Your task to perform on an android device: stop showing notifications on the lock screen Image 0: 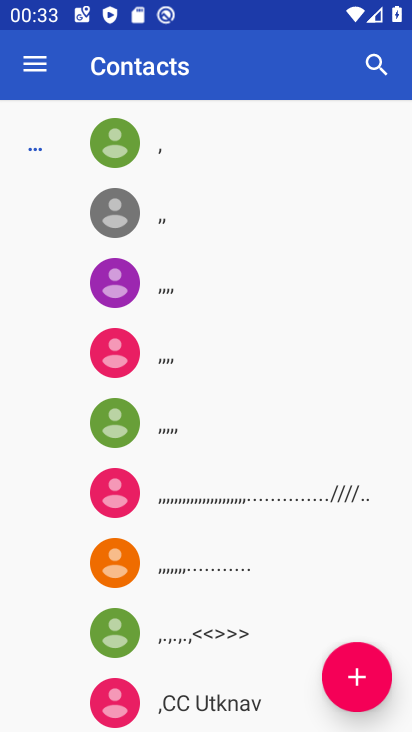
Step 0: press home button
Your task to perform on an android device: stop showing notifications on the lock screen Image 1: 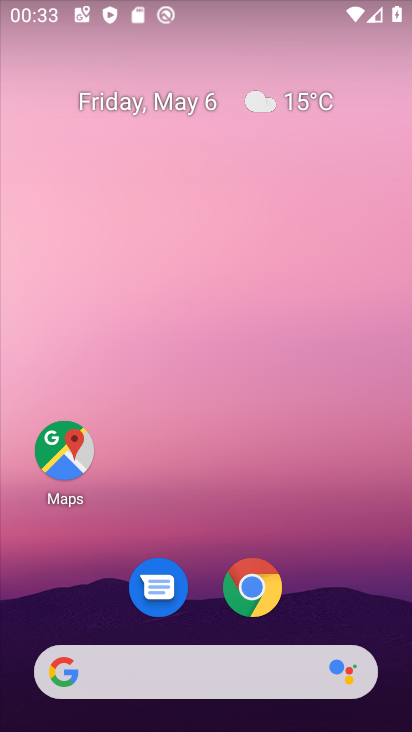
Step 1: drag from (337, 361) to (323, 243)
Your task to perform on an android device: stop showing notifications on the lock screen Image 2: 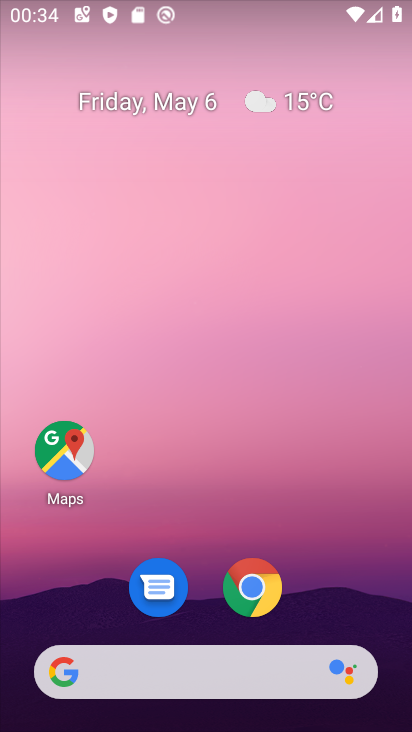
Step 2: drag from (375, 594) to (329, 108)
Your task to perform on an android device: stop showing notifications on the lock screen Image 3: 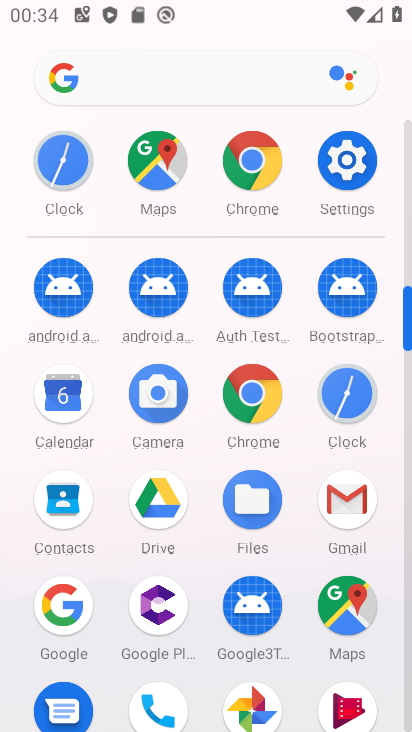
Step 3: click (349, 169)
Your task to perform on an android device: stop showing notifications on the lock screen Image 4: 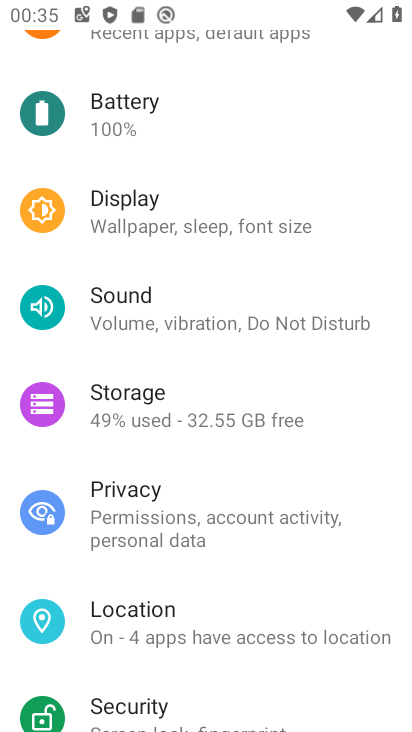
Step 4: drag from (261, 207) to (330, 593)
Your task to perform on an android device: stop showing notifications on the lock screen Image 5: 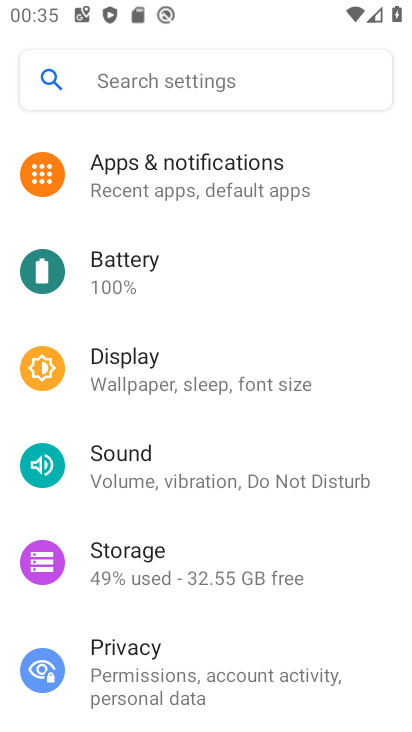
Step 5: click (192, 177)
Your task to perform on an android device: stop showing notifications on the lock screen Image 6: 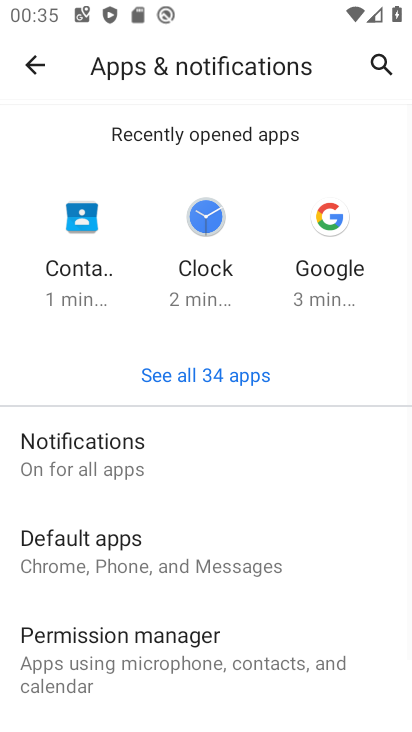
Step 6: click (57, 456)
Your task to perform on an android device: stop showing notifications on the lock screen Image 7: 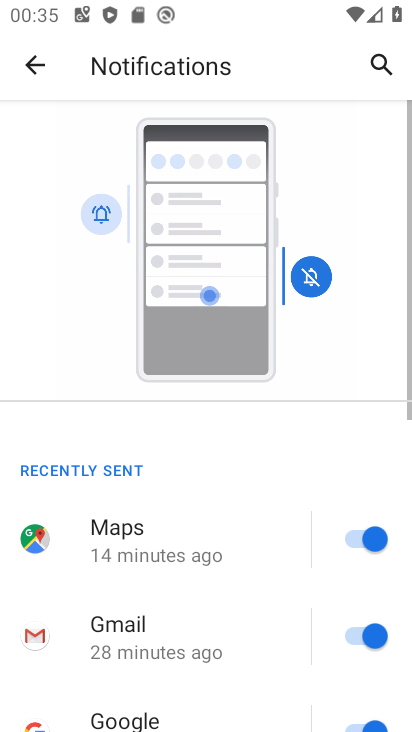
Step 7: drag from (274, 542) to (247, 217)
Your task to perform on an android device: stop showing notifications on the lock screen Image 8: 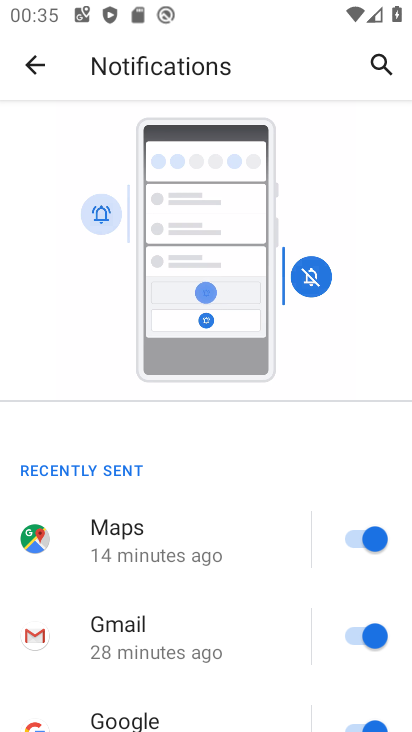
Step 8: drag from (279, 649) to (239, 384)
Your task to perform on an android device: stop showing notifications on the lock screen Image 9: 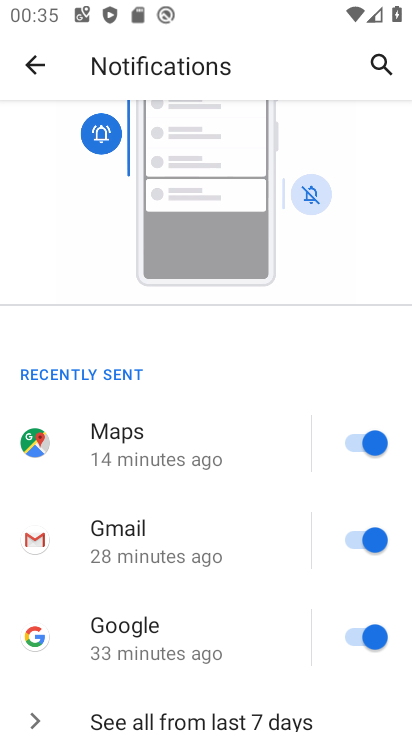
Step 9: drag from (258, 664) to (200, 379)
Your task to perform on an android device: stop showing notifications on the lock screen Image 10: 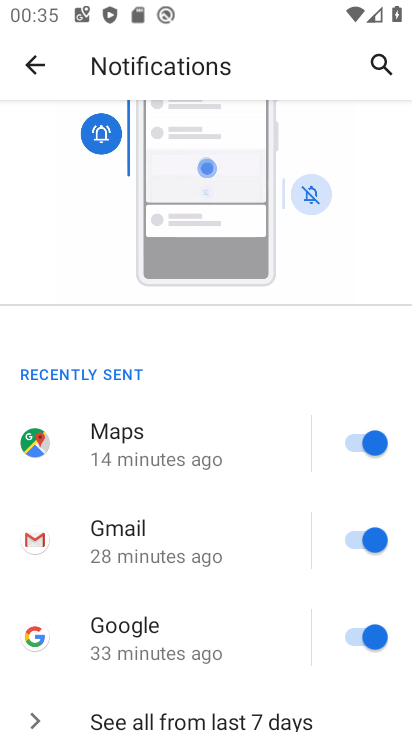
Step 10: drag from (266, 654) to (230, 260)
Your task to perform on an android device: stop showing notifications on the lock screen Image 11: 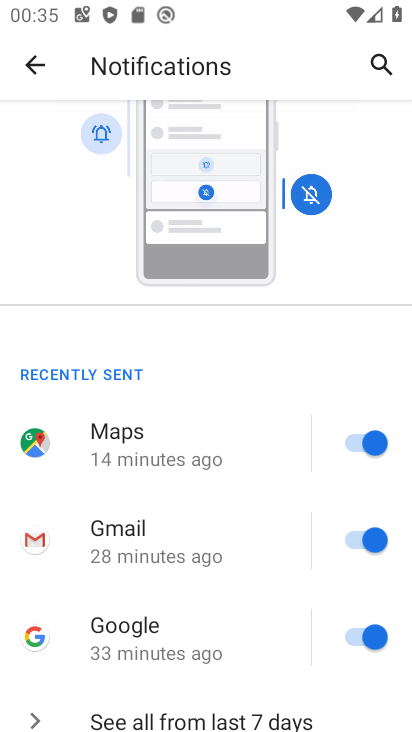
Step 11: drag from (302, 690) to (272, 311)
Your task to perform on an android device: stop showing notifications on the lock screen Image 12: 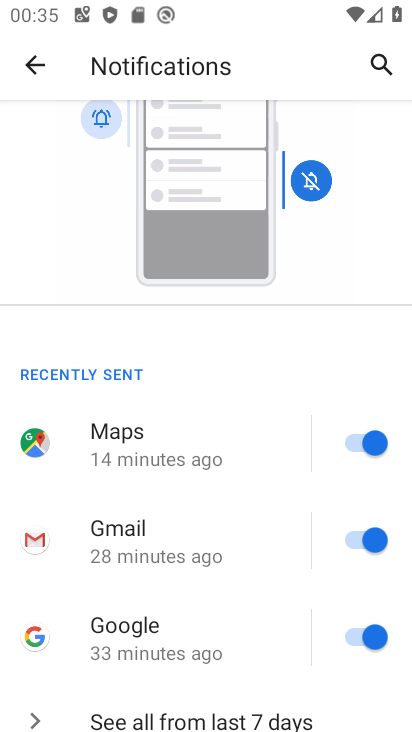
Step 12: drag from (279, 681) to (294, 323)
Your task to perform on an android device: stop showing notifications on the lock screen Image 13: 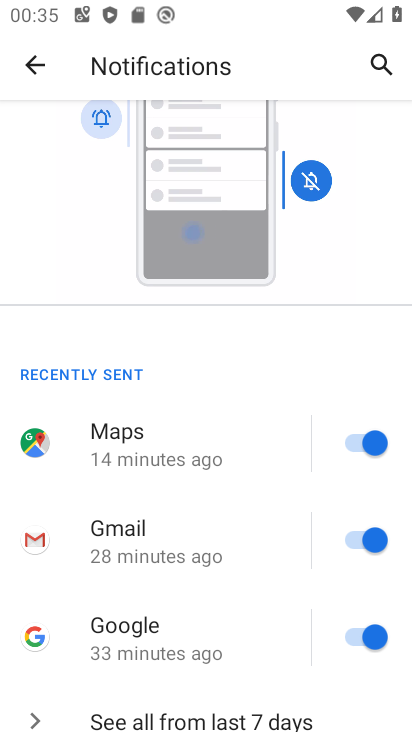
Step 13: drag from (328, 726) to (297, 259)
Your task to perform on an android device: stop showing notifications on the lock screen Image 14: 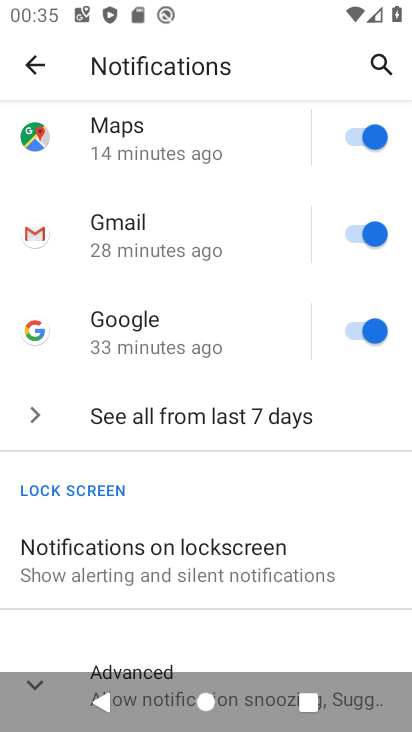
Step 14: click (171, 549)
Your task to perform on an android device: stop showing notifications on the lock screen Image 15: 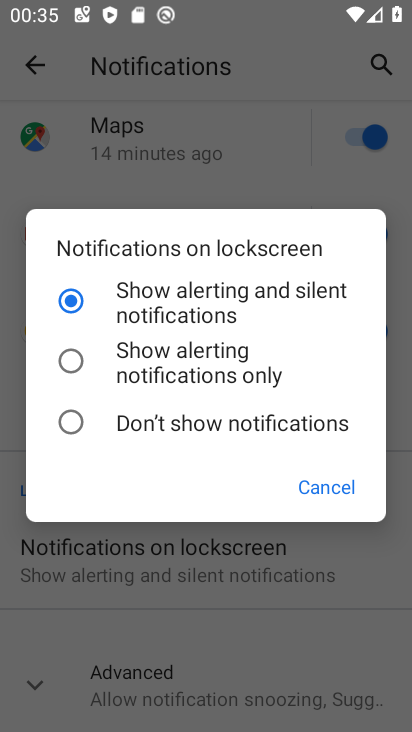
Step 15: click (77, 428)
Your task to perform on an android device: stop showing notifications on the lock screen Image 16: 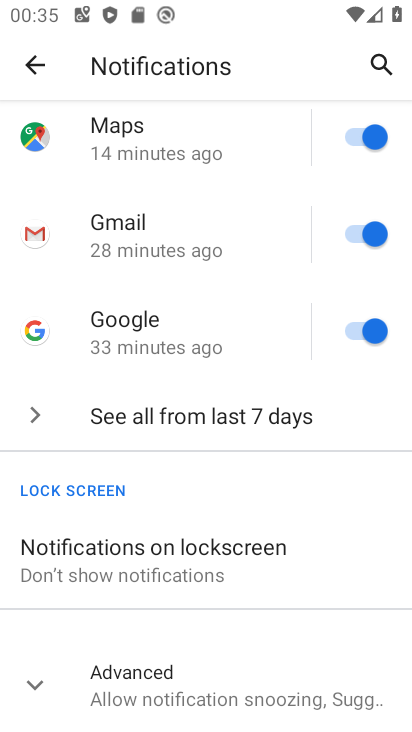
Step 16: task complete